Your task to perform on an android device: Find coffee shops on Maps Image 0: 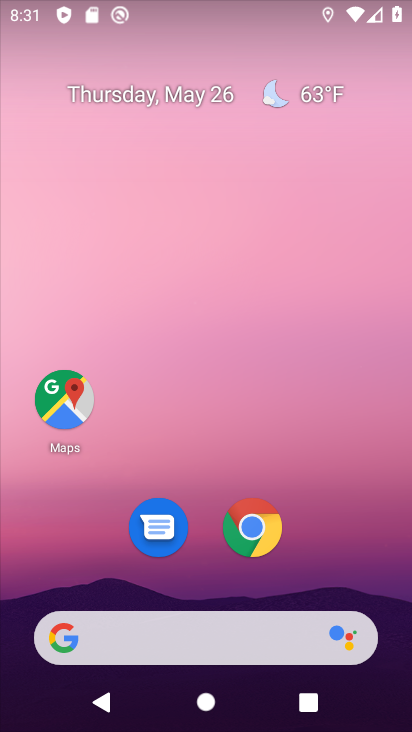
Step 0: drag from (384, 484) to (402, 76)
Your task to perform on an android device: Find coffee shops on Maps Image 1: 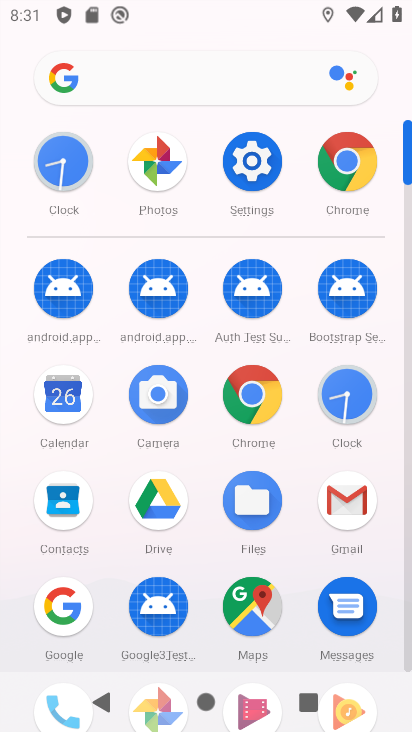
Step 1: click (246, 626)
Your task to perform on an android device: Find coffee shops on Maps Image 2: 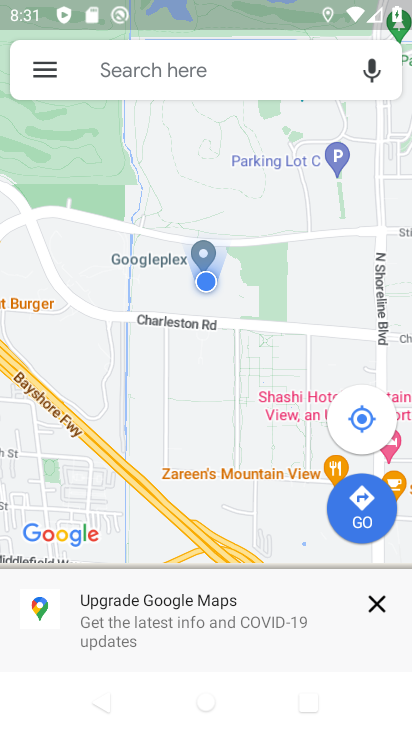
Step 2: click (189, 87)
Your task to perform on an android device: Find coffee shops on Maps Image 3: 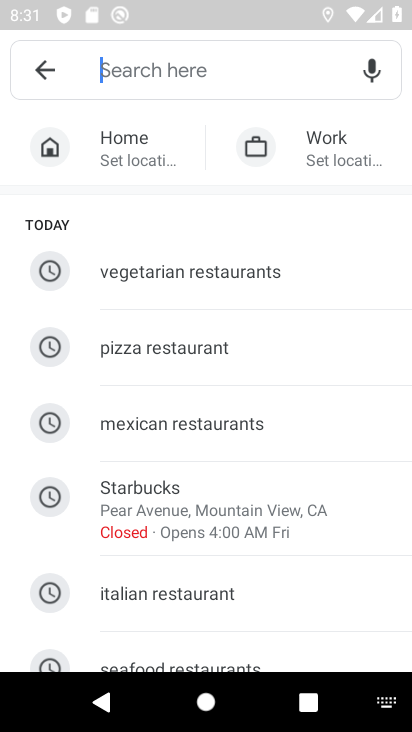
Step 3: drag from (257, 567) to (328, 269)
Your task to perform on an android device: Find coffee shops on Maps Image 4: 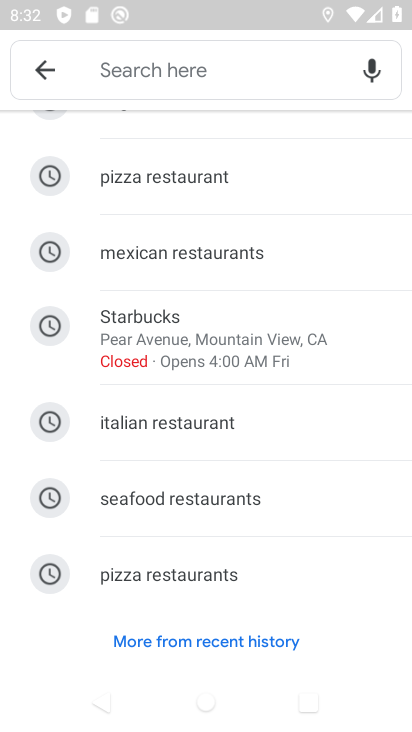
Step 4: drag from (275, 290) to (309, 646)
Your task to perform on an android device: Find coffee shops on Maps Image 5: 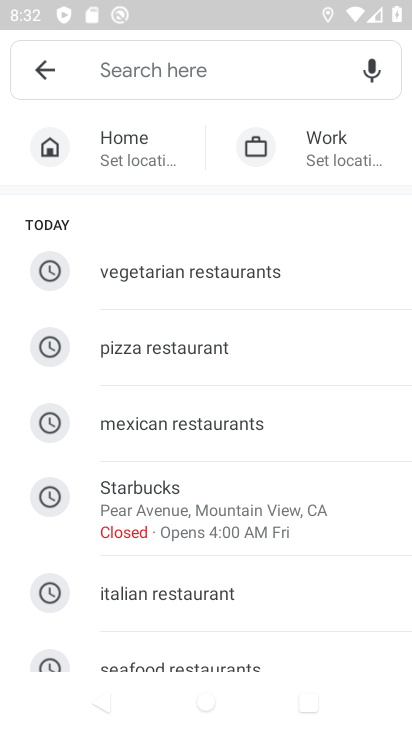
Step 5: drag from (266, 313) to (304, 650)
Your task to perform on an android device: Find coffee shops on Maps Image 6: 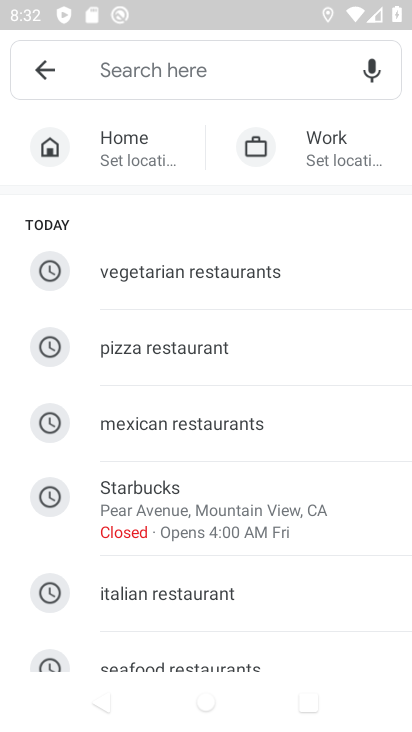
Step 6: click (195, 73)
Your task to perform on an android device: Find coffee shops on Maps Image 7: 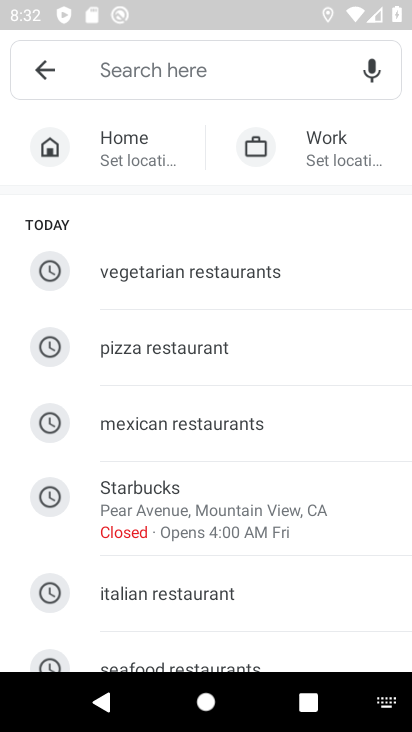
Step 7: type "coffee"
Your task to perform on an android device: Find coffee shops on Maps Image 8: 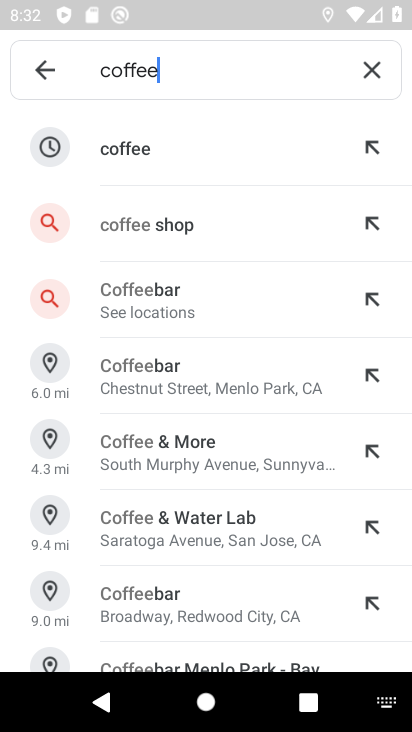
Step 8: click (129, 136)
Your task to perform on an android device: Find coffee shops on Maps Image 9: 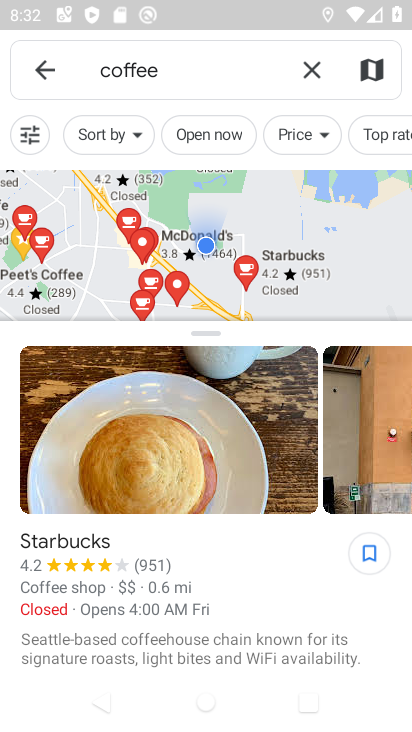
Step 9: task complete